Your task to perform on an android device: Go to ESPN.com Image 0: 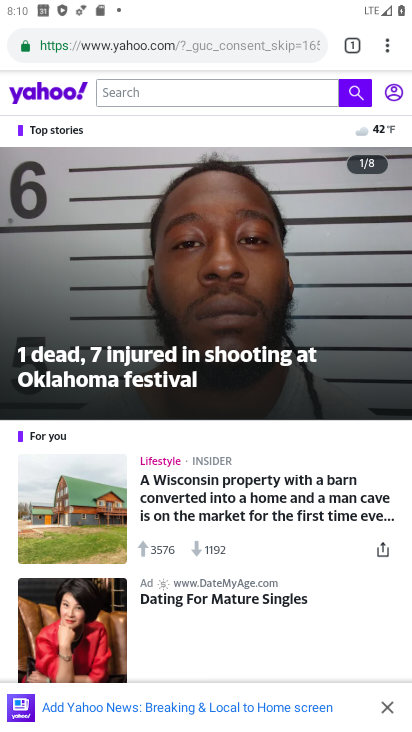
Step 0: press home button
Your task to perform on an android device: Go to ESPN.com Image 1: 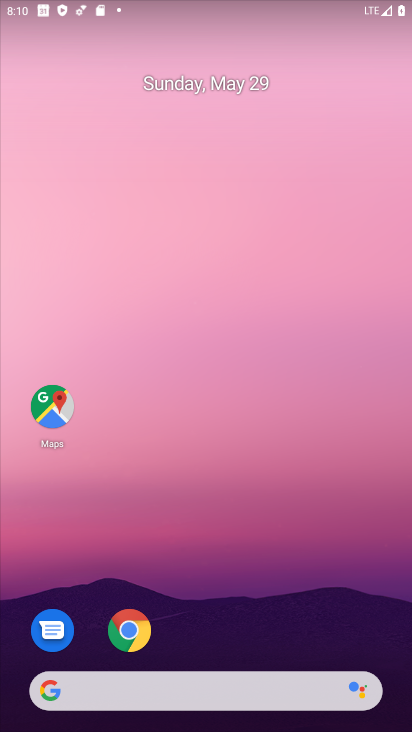
Step 1: click (123, 628)
Your task to perform on an android device: Go to ESPN.com Image 2: 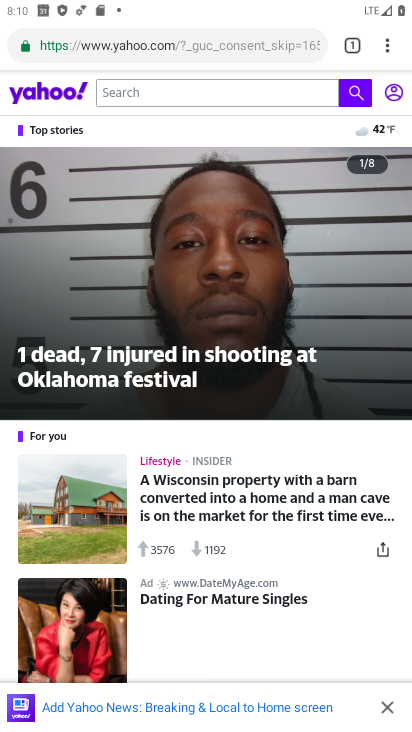
Step 2: click (339, 47)
Your task to perform on an android device: Go to ESPN.com Image 3: 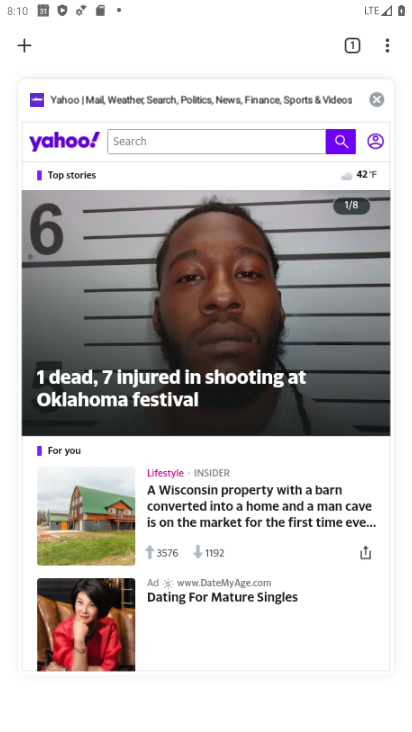
Step 3: click (26, 45)
Your task to perform on an android device: Go to ESPN.com Image 4: 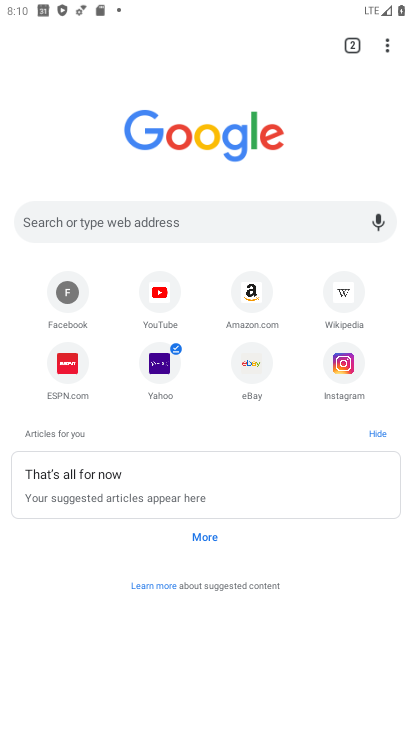
Step 4: click (63, 372)
Your task to perform on an android device: Go to ESPN.com Image 5: 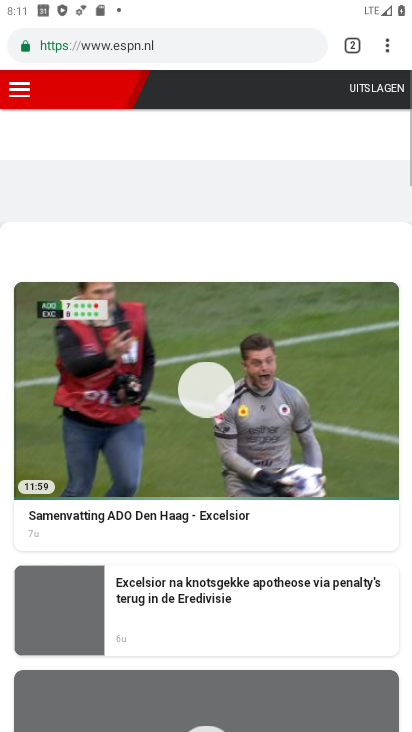
Step 5: task complete